Your task to perform on an android device: move an email to a new category in the gmail app Image 0: 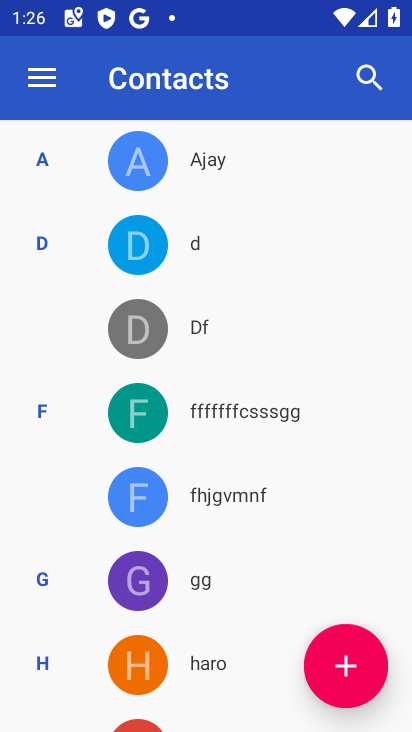
Step 0: press back button
Your task to perform on an android device: move an email to a new category in the gmail app Image 1: 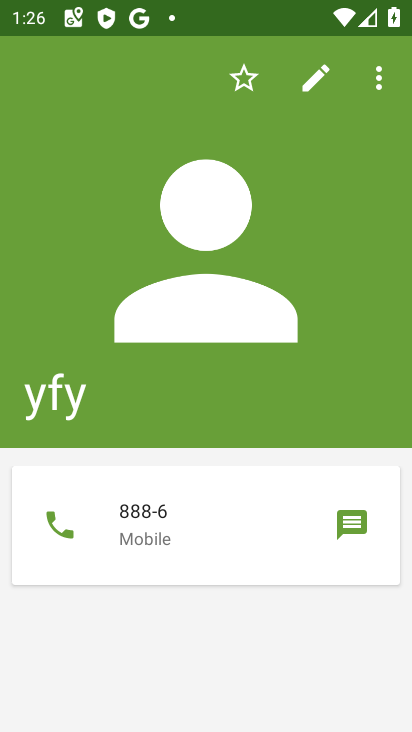
Step 1: press back button
Your task to perform on an android device: move an email to a new category in the gmail app Image 2: 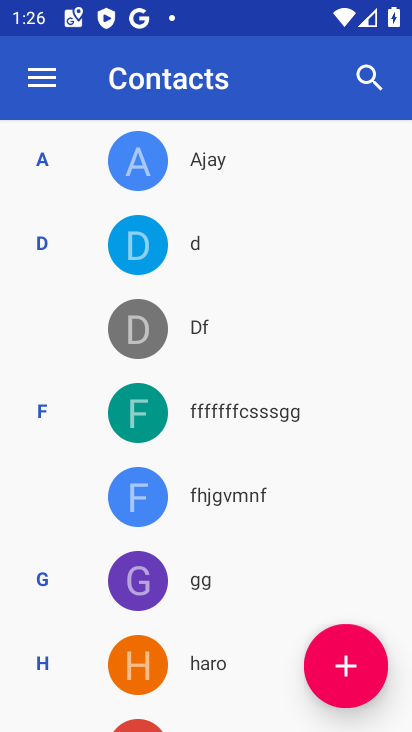
Step 2: press back button
Your task to perform on an android device: move an email to a new category in the gmail app Image 3: 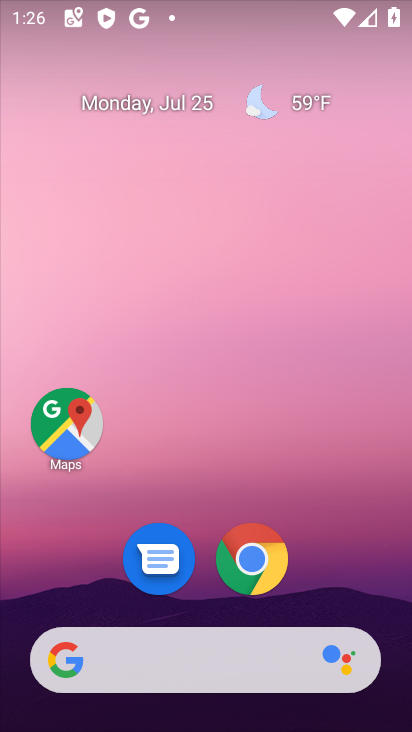
Step 3: drag from (62, 590) to (180, 3)
Your task to perform on an android device: move an email to a new category in the gmail app Image 4: 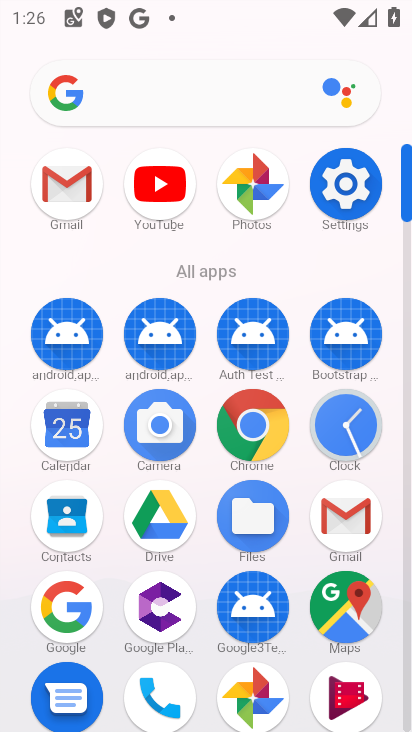
Step 4: click (75, 179)
Your task to perform on an android device: move an email to a new category in the gmail app Image 5: 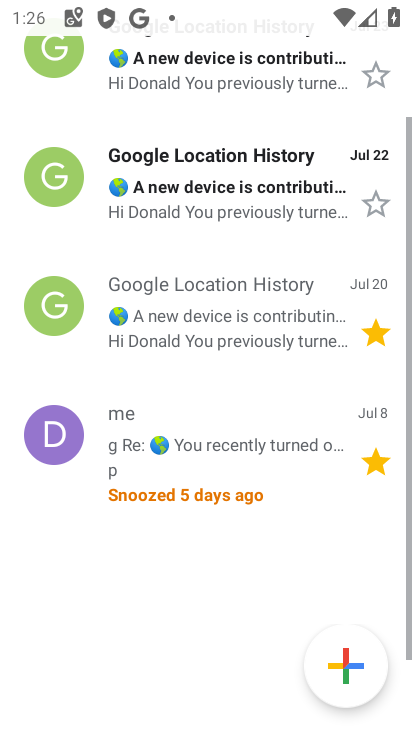
Step 5: drag from (138, 251) to (123, 659)
Your task to perform on an android device: move an email to a new category in the gmail app Image 6: 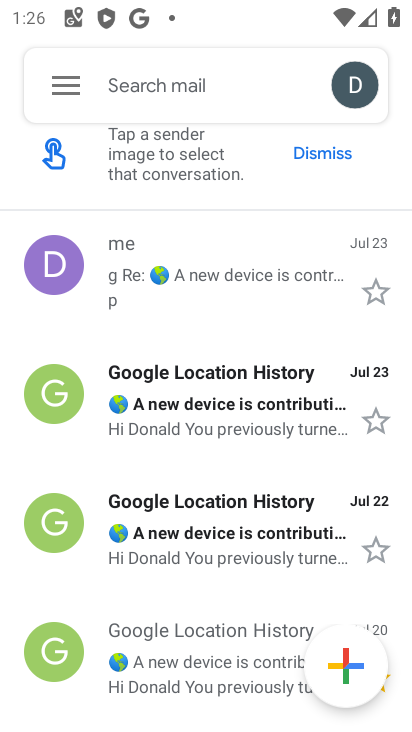
Step 6: click (210, 271)
Your task to perform on an android device: move an email to a new category in the gmail app Image 7: 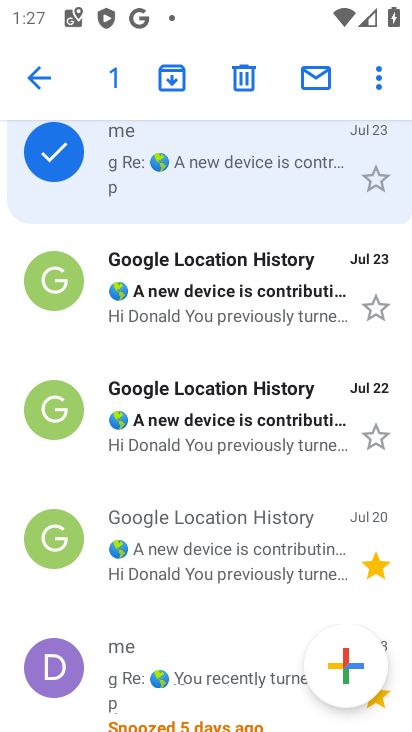
Step 7: click (382, 80)
Your task to perform on an android device: move an email to a new category in the gmail app Image 8: 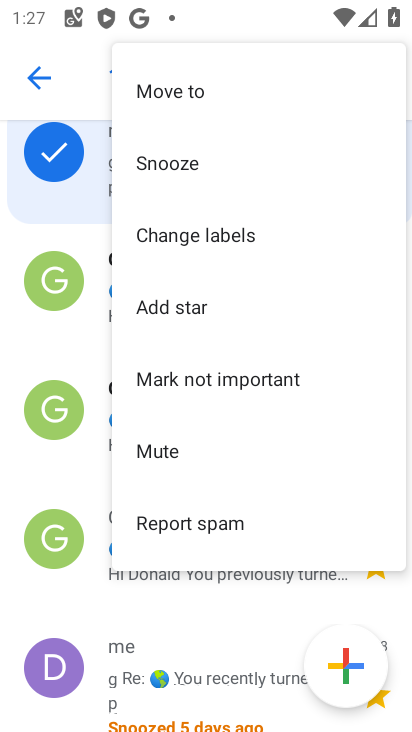
Step 8: click (184, 90)
Your task to perform on an android device: move an email to a new category in the gmail app Image 9: 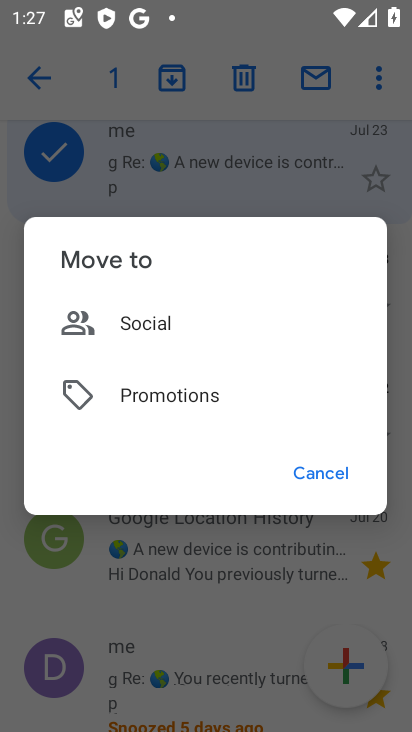
Step 9: click (138, 314)
Your task to perform on an android device: move an email to a new category in the gmail app Image 10: 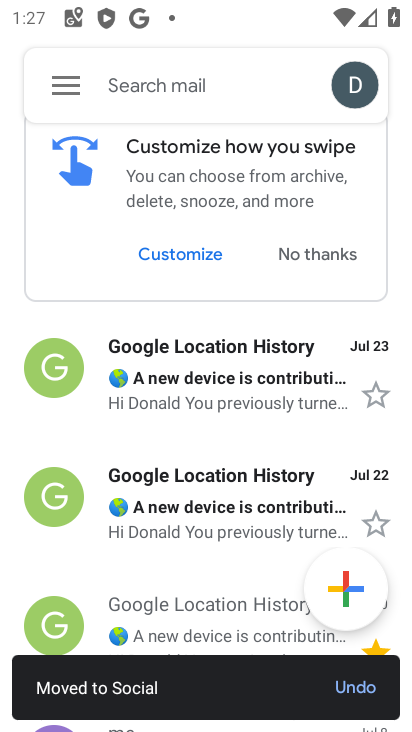
Step 10: task complete